Your task to perform on an android device: Go to wifi settings Image 0: 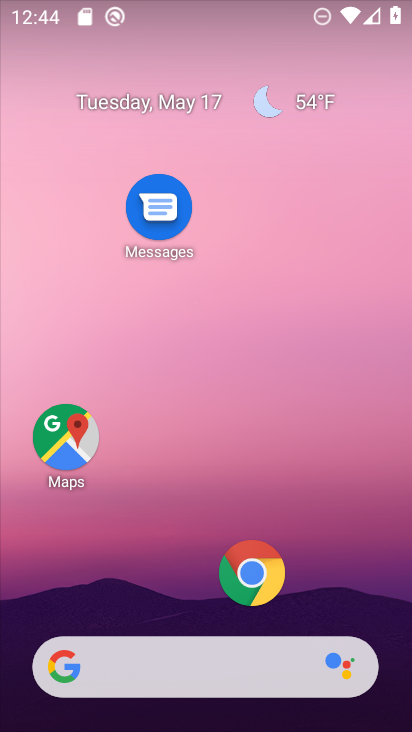
Step 0: press home button
Your task to perform on an android device: Go to wifi settings Image 1: 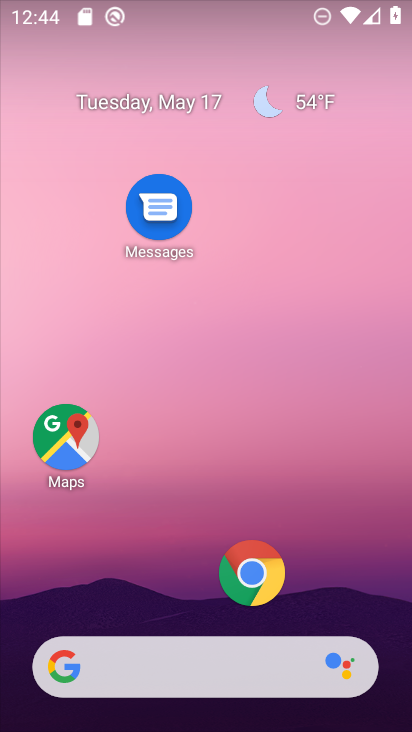
Step 1: drag from (204, 607) to (240, 12)
Your task to perform on an android device: Go to wifi settings Image 2: 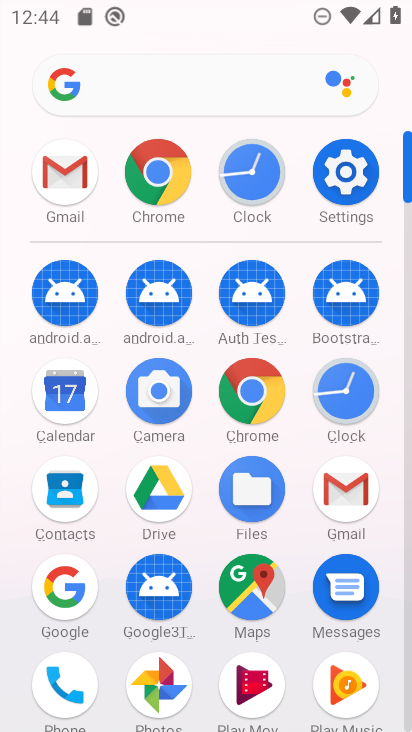
Step 2: drag from (209, 6) to (210, 537)
Your task to perform on an android device: Go to wifi settings Image 3: 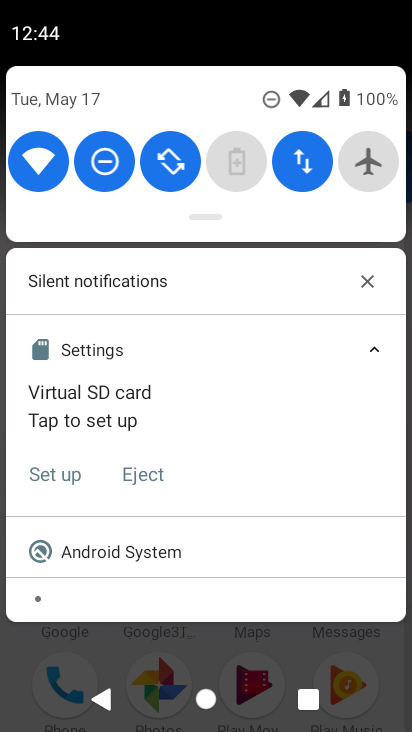
Step 3: drag from (236, 652) to (241, 109)
Your task to perform on an android device: Go to wifi settings Image 4: 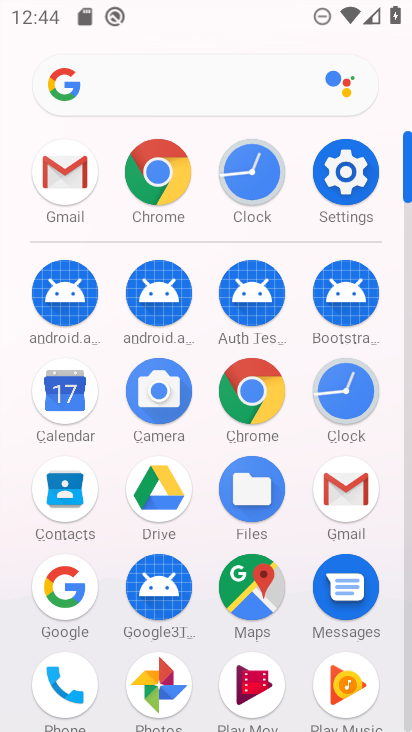
Step 4: click (349, 165)
Your task to perform on an android device: Go to wifi settings Image 5: 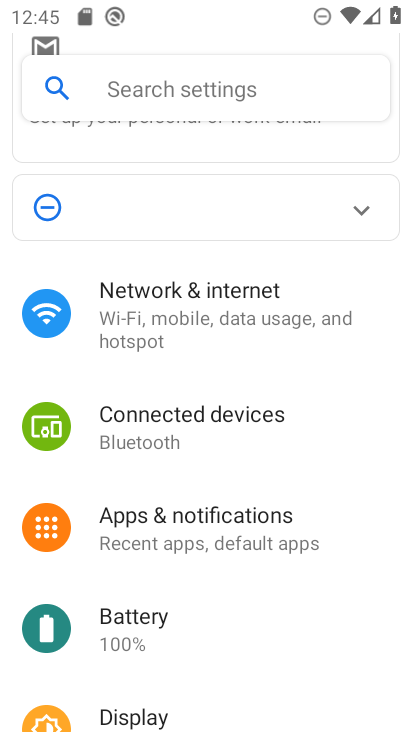
Step 5: click (215, 302)
Your task to perform on an android device: Go to wifi settings Image 6: 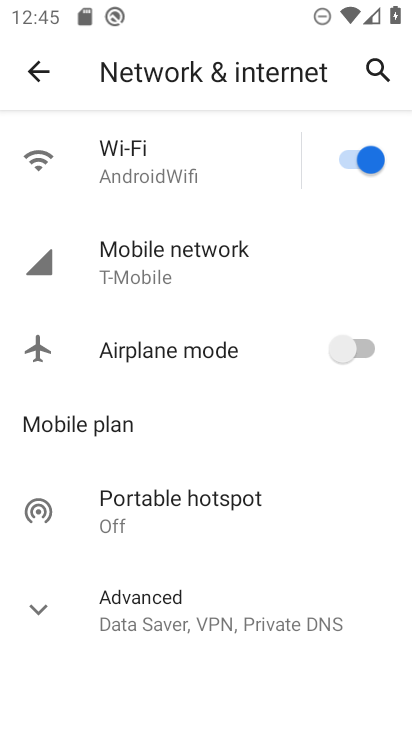
Step 6: click (210, 153)
Your task to perform on an android device: Go to wifi settings Image 7: 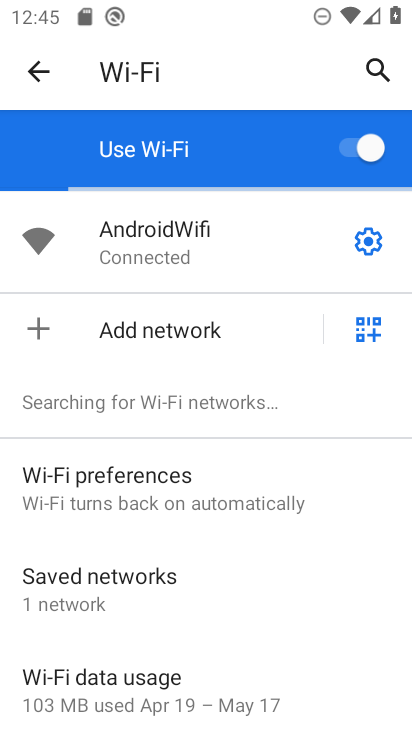
Step 7: task complete